Your task to perform on an android device: all mails in gmail Image 0: 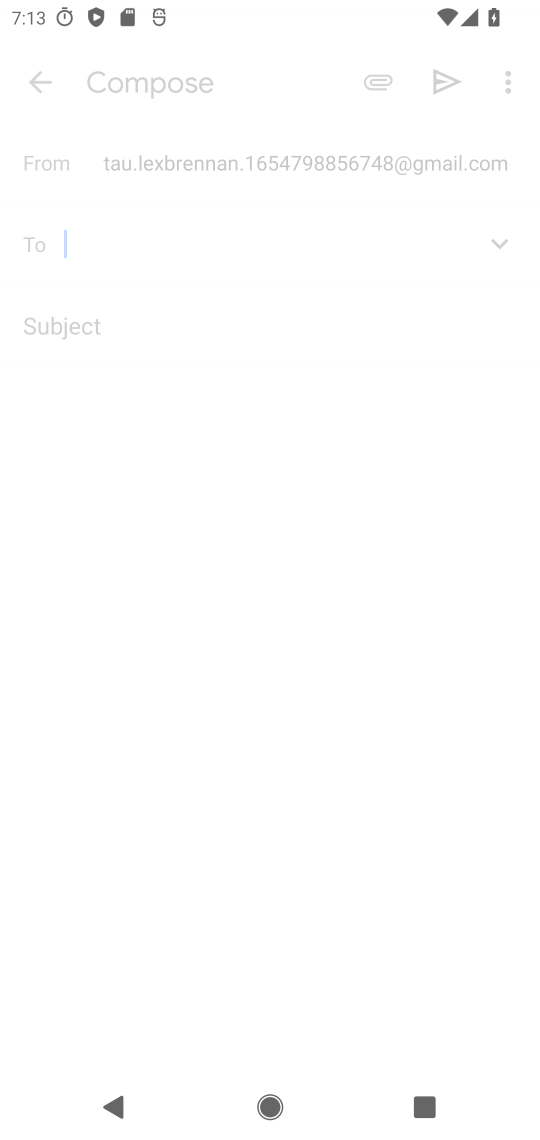
Step 0: click (37, 80)
Your task to perform on an android device: all mails in gmail Image 1: 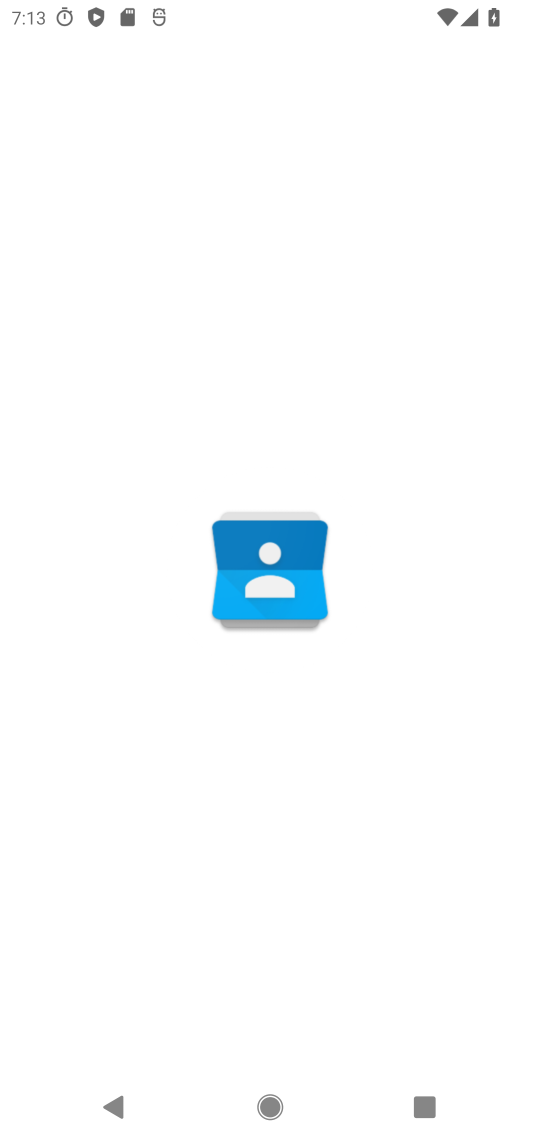
Step 1: click (37, 83)
Your task to perform on an android device: all mails in gmail Image 2: 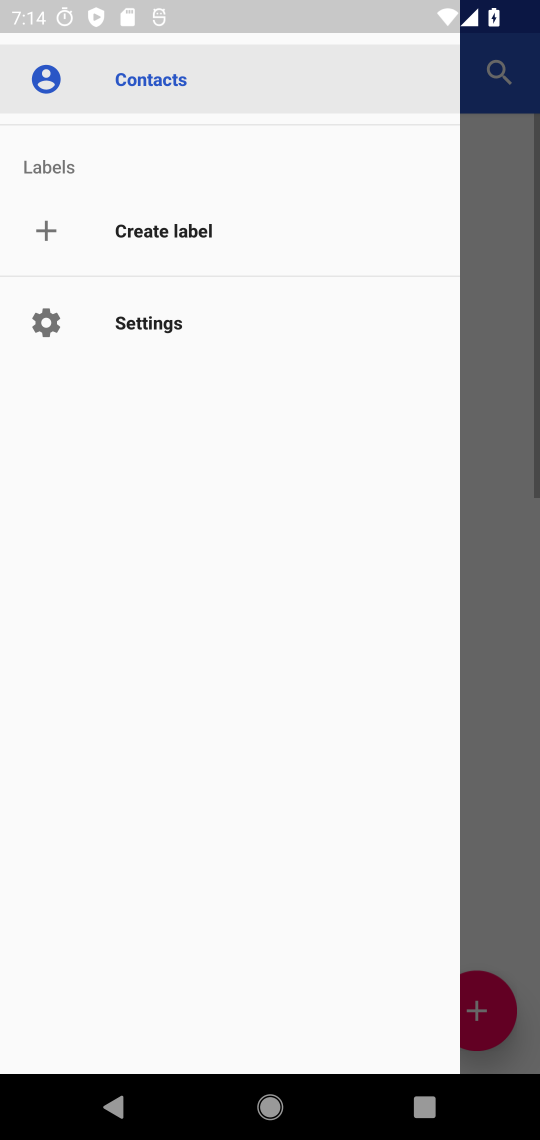
Step 2: press back button
Your task to perform on an android device: all mails in gmail Image 3: 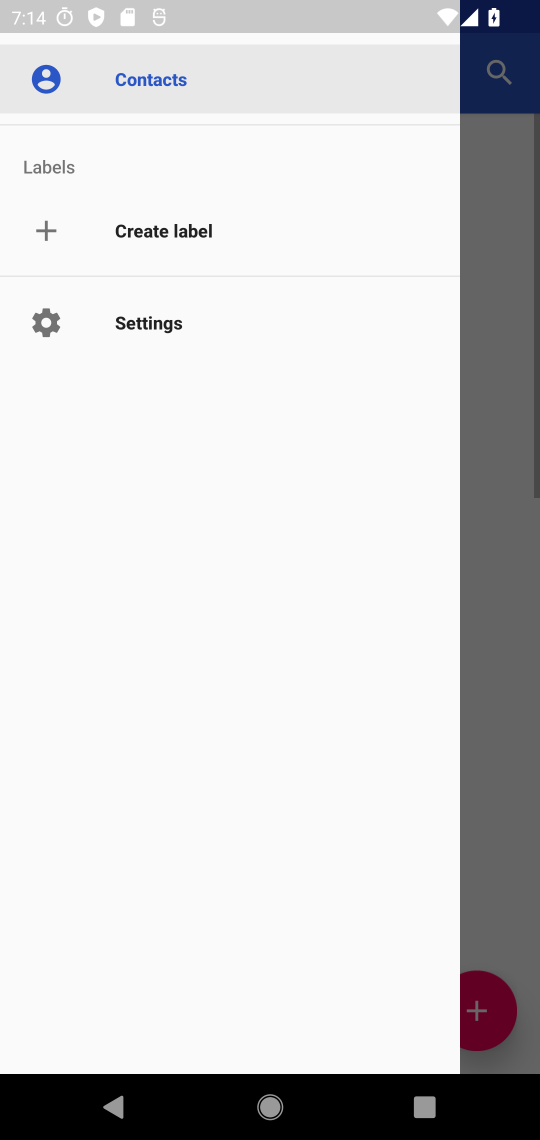
Step 3: press back button
Your task to perform on an android device: all mails in gmail Image 4: 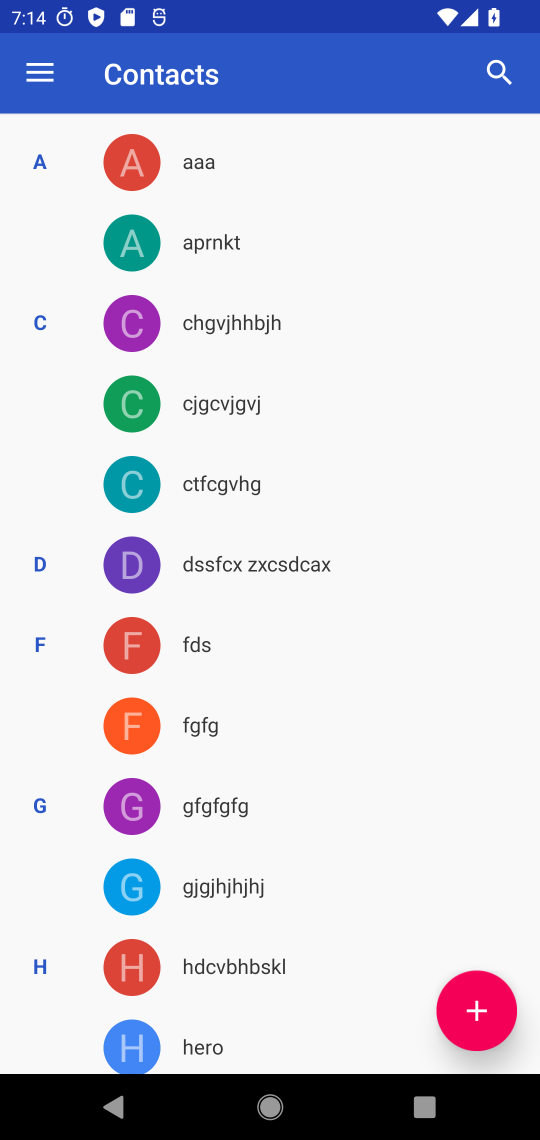
Step 4: press back button
Your task to perform on an android device: all mails in gmail Image 5: 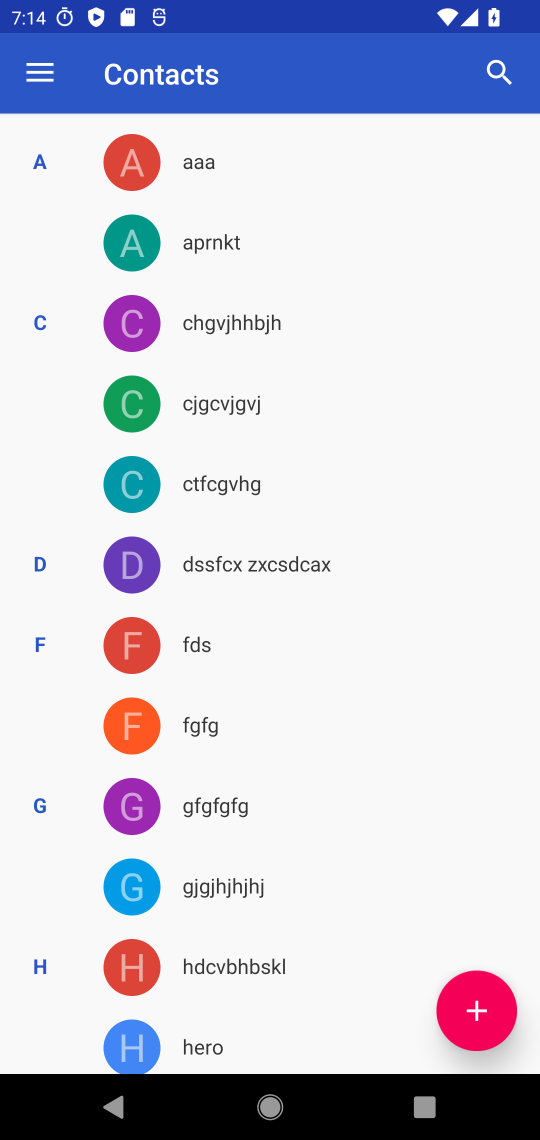
Step 5: press back button
Your task to perform on an android device: all mails in gmail Image 6: 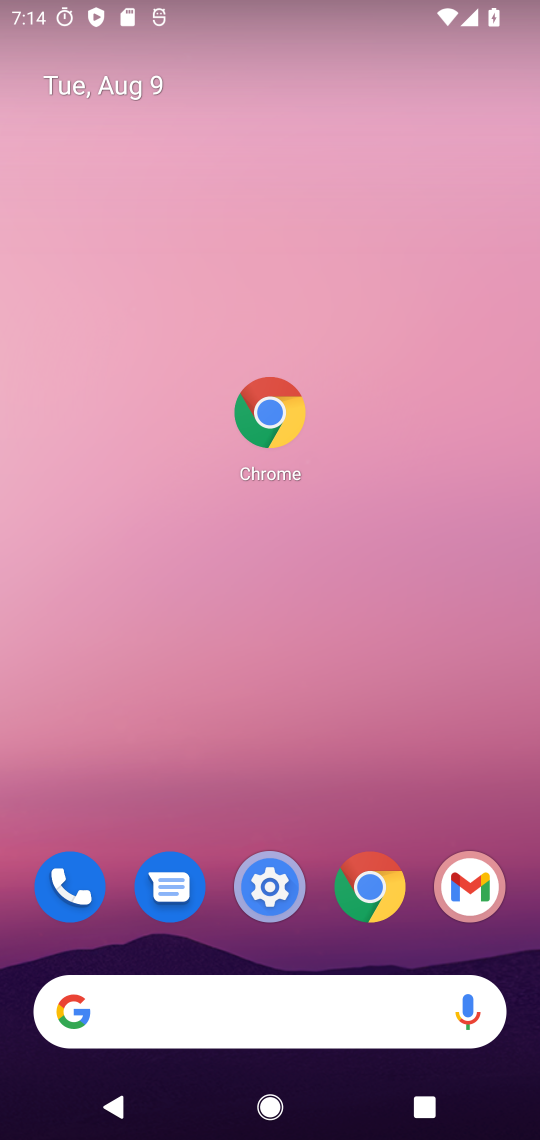
Step 6: press home button
Your task to perform on an android device: all mails in gmail Image 7: 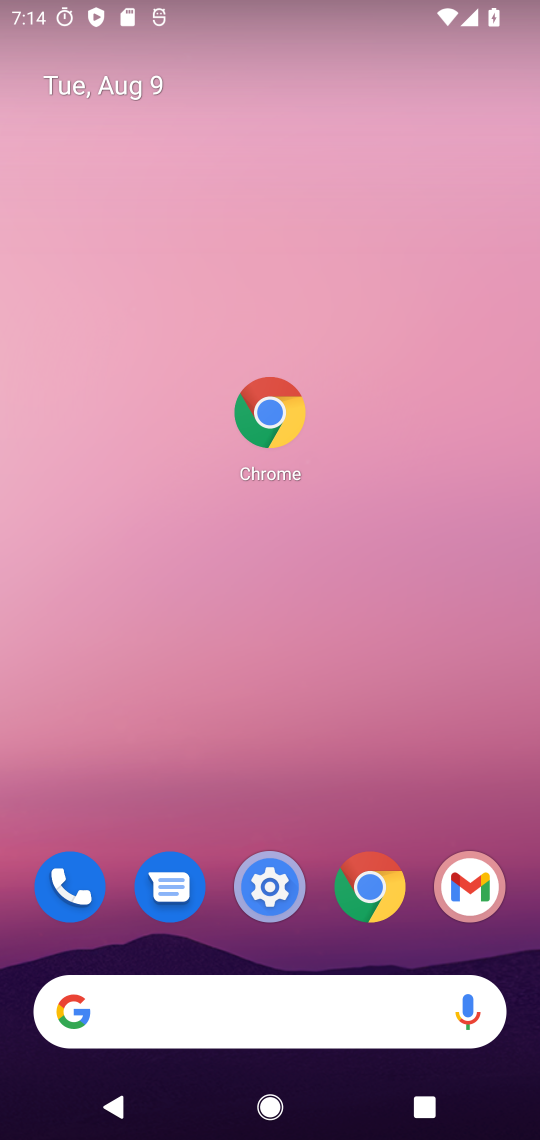
Step 7: press home button
Your task to perform on an android device: all mails in gmail Image 8: 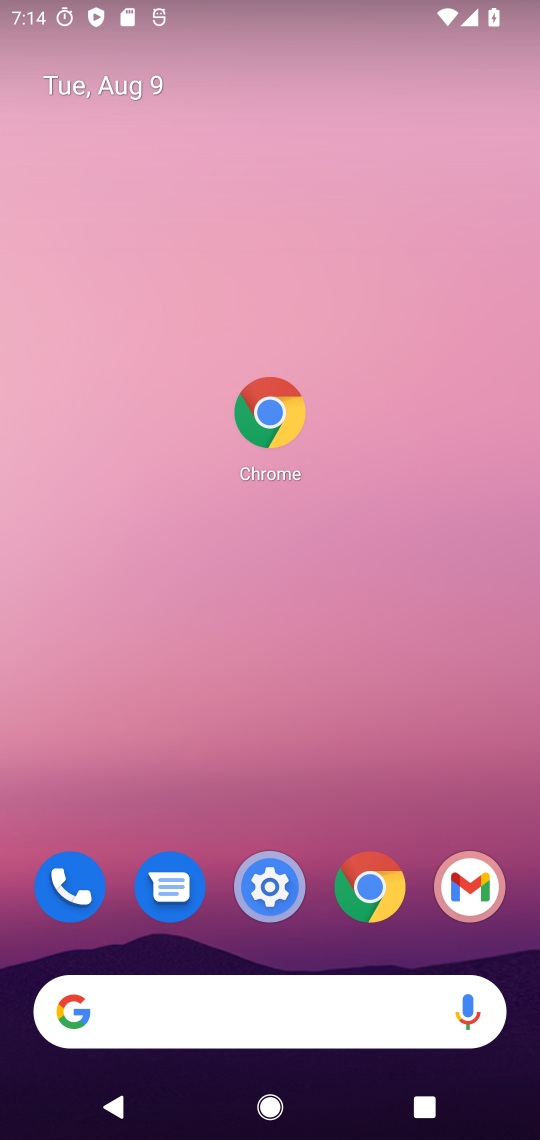
Step 8: drag from (262, 1012) to (237, 145)
Your task to perform on an android device: all mails in gmail Image 9: 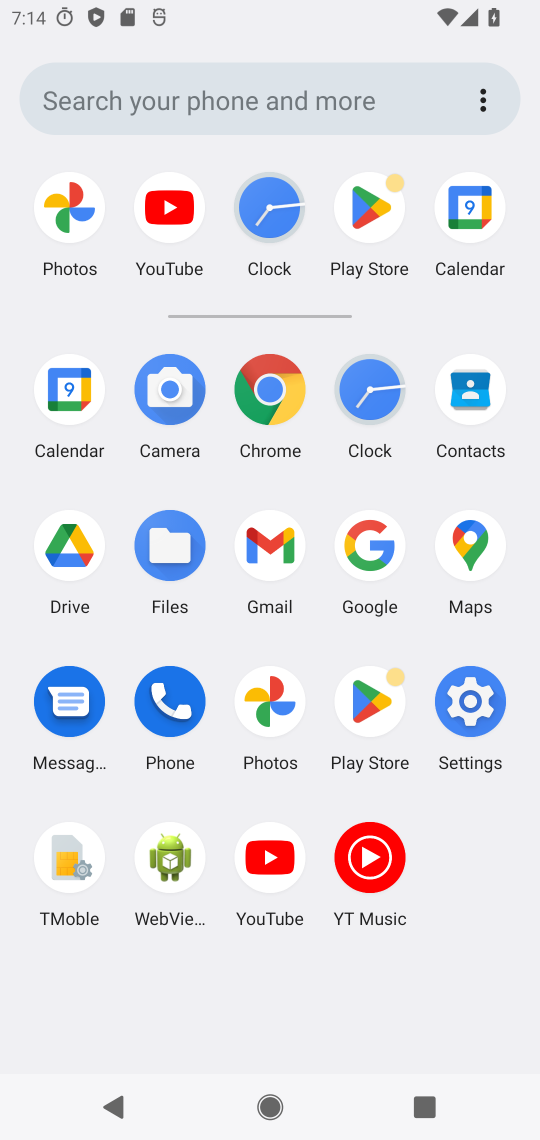
Step 9: drag from (378, 753) to (436, 264)
Your task to perform on an android device: all mails in gmail Image 10: 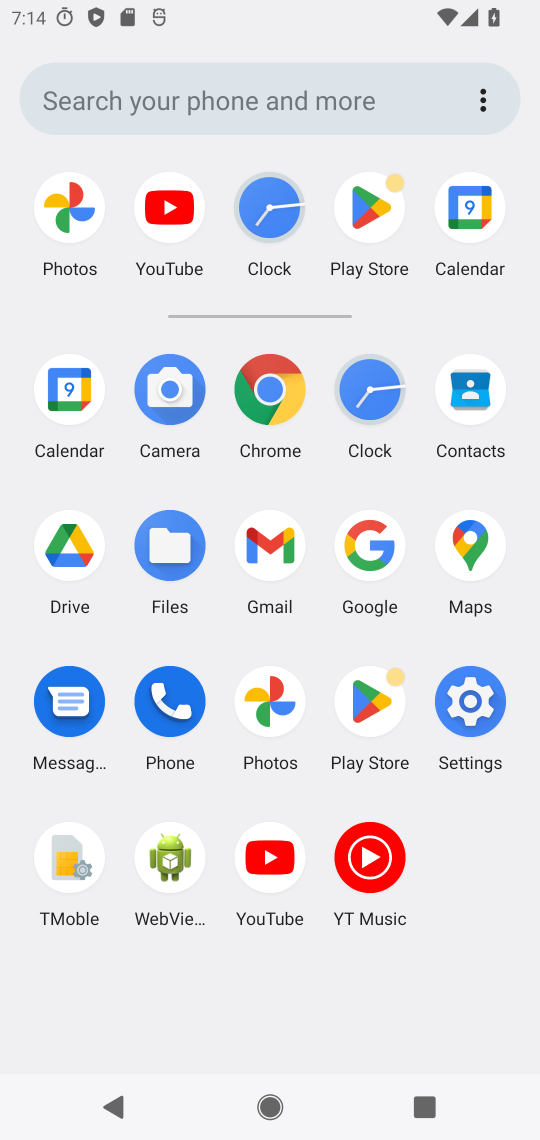
Step 10: click (275, 565)
Your task to perform on an android device: all mails in gmail Image 11: 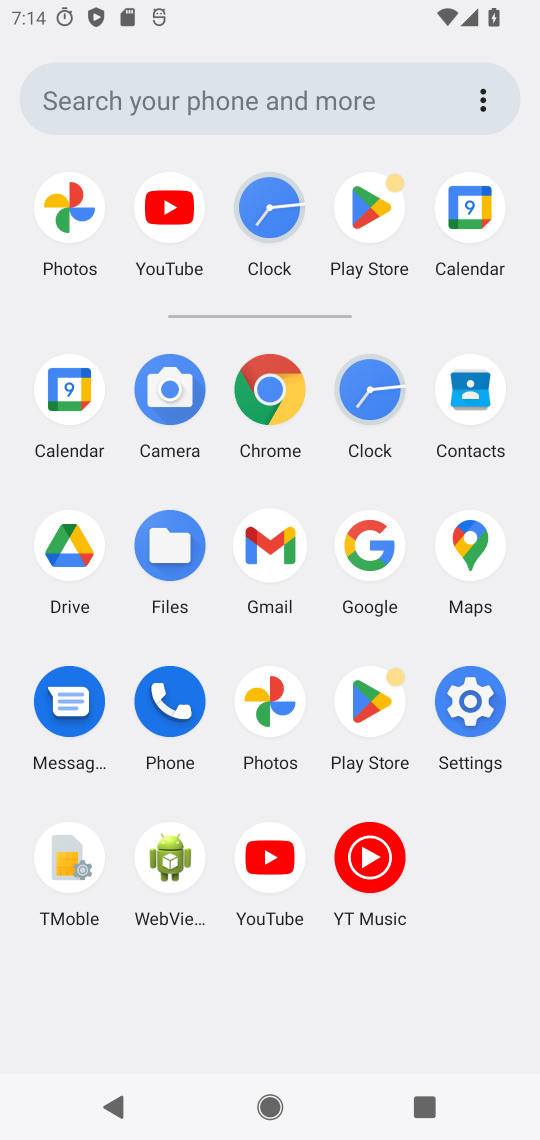
Step 11: click (273, 561)
Your task to perform on an android device: all mails in gmail Image 12: 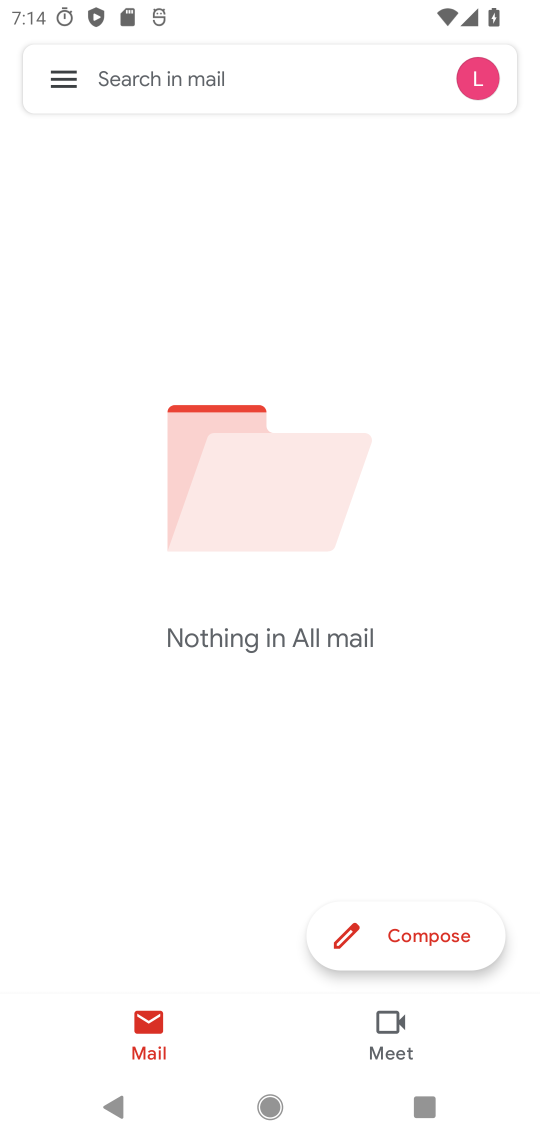
Step 12: click (55, 62)
Your task to perform on an android device: all mails in gmail Image 13: 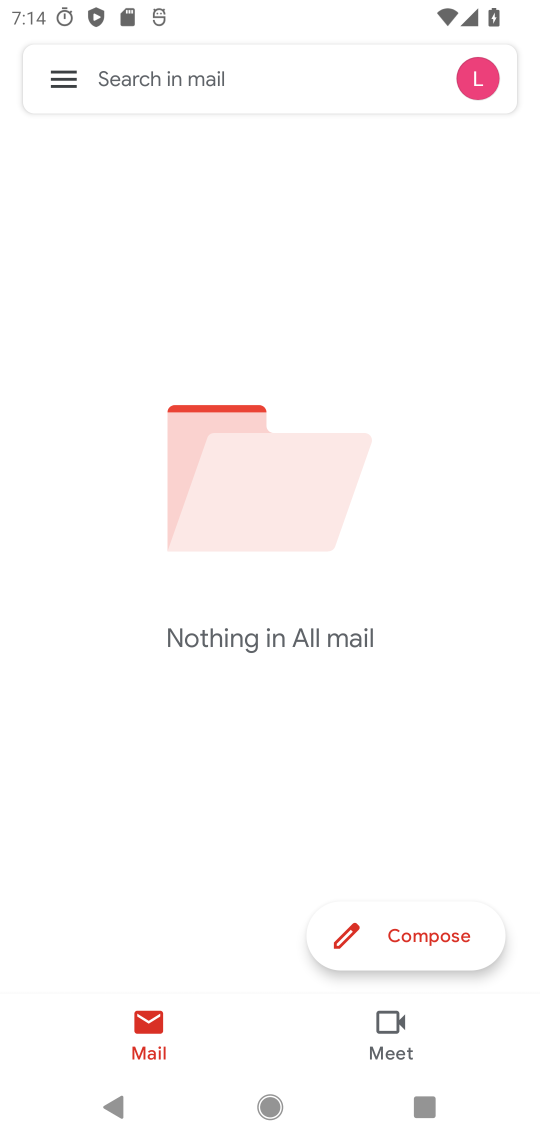
Step 13: click (62, 72)
Your task to perform on an android device: all mails in gmail Image 14: 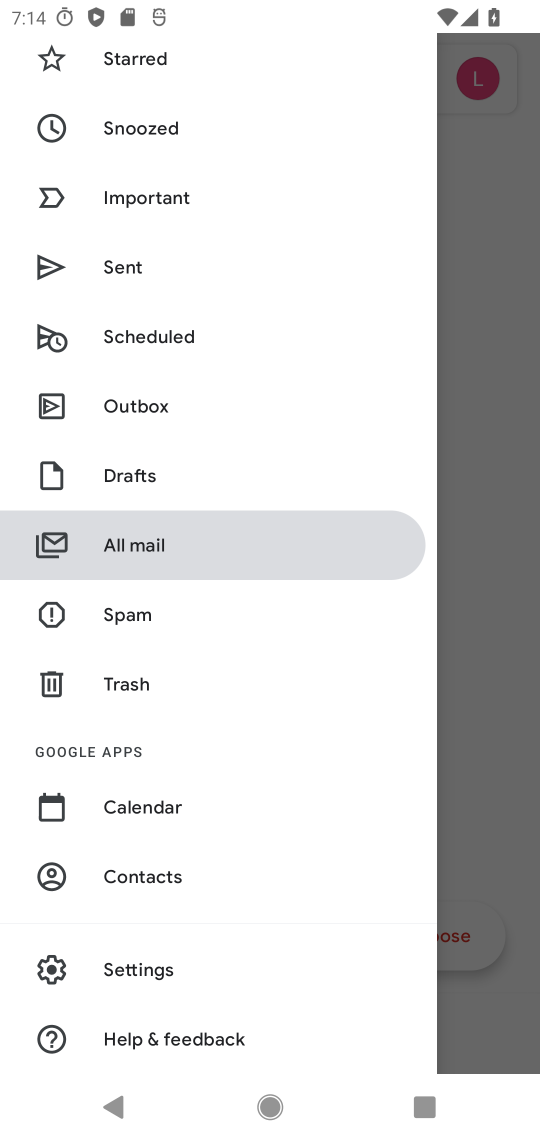
Step 14: click (162, 547)
Your task to perform on an android device: all mails in gmail Image 15: 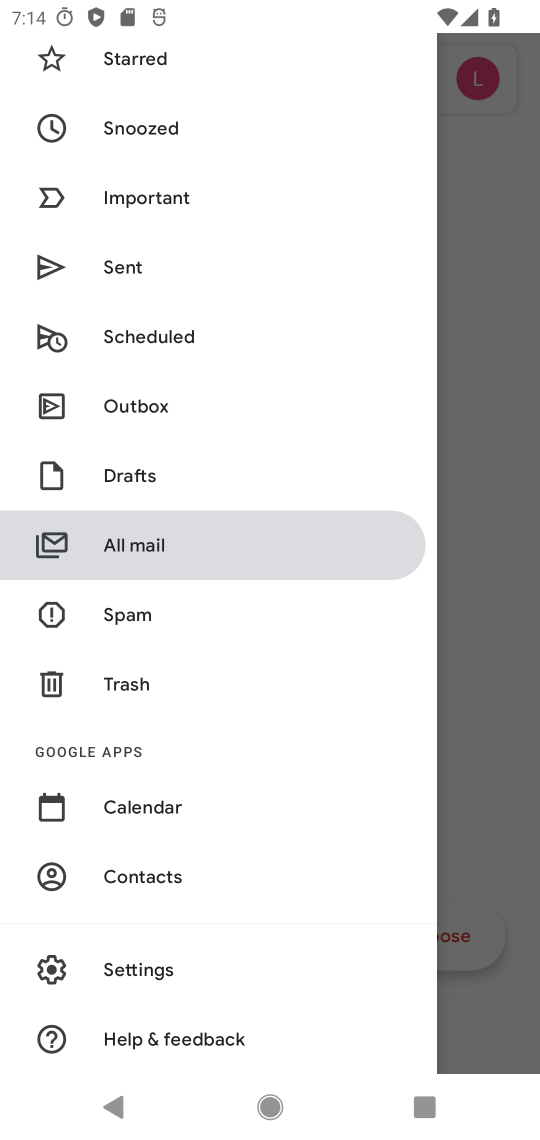
Step 15: click (171, 557)
Your task to perform on an android device: all mails in gmail Image 16: 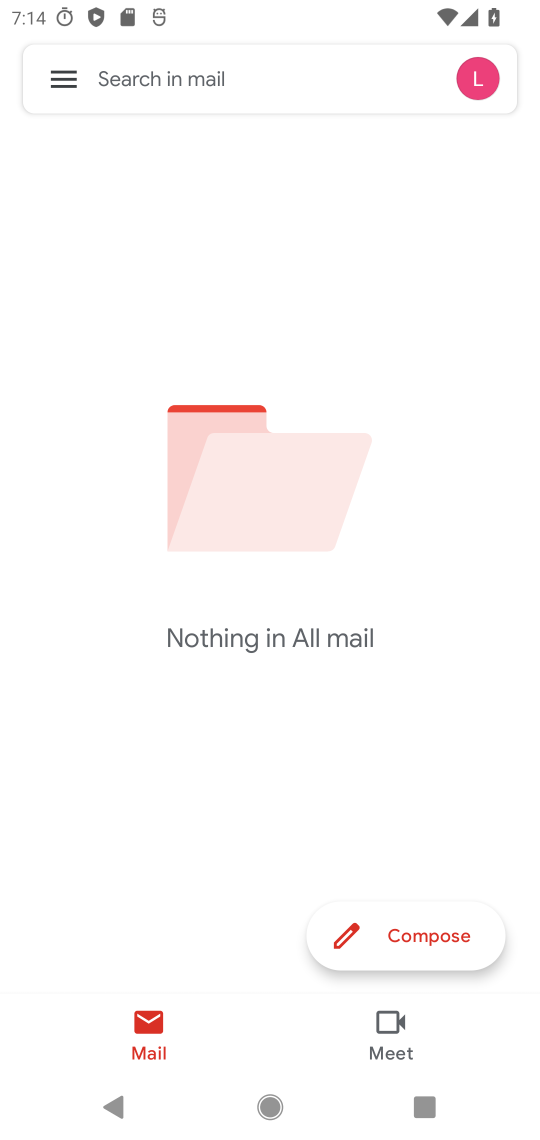
Step 16: task complete